Your task to perform on an android device: What's the weather going to be this weekend? Image 0: 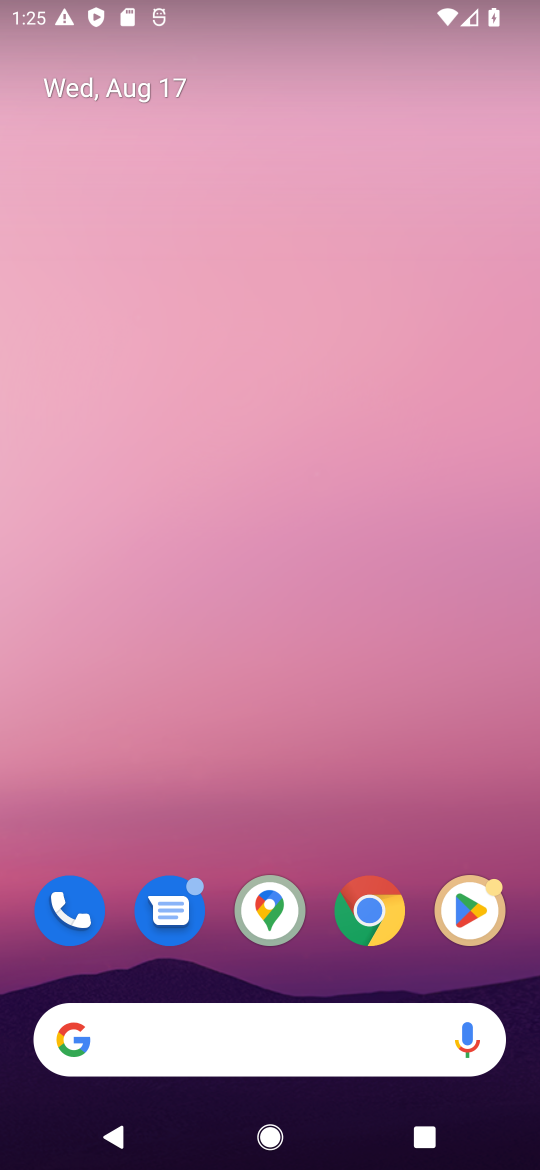
Step 0: click (313, 1043)
Your task to perform on an android device: What's the weather going to be this weekend? Image 1: 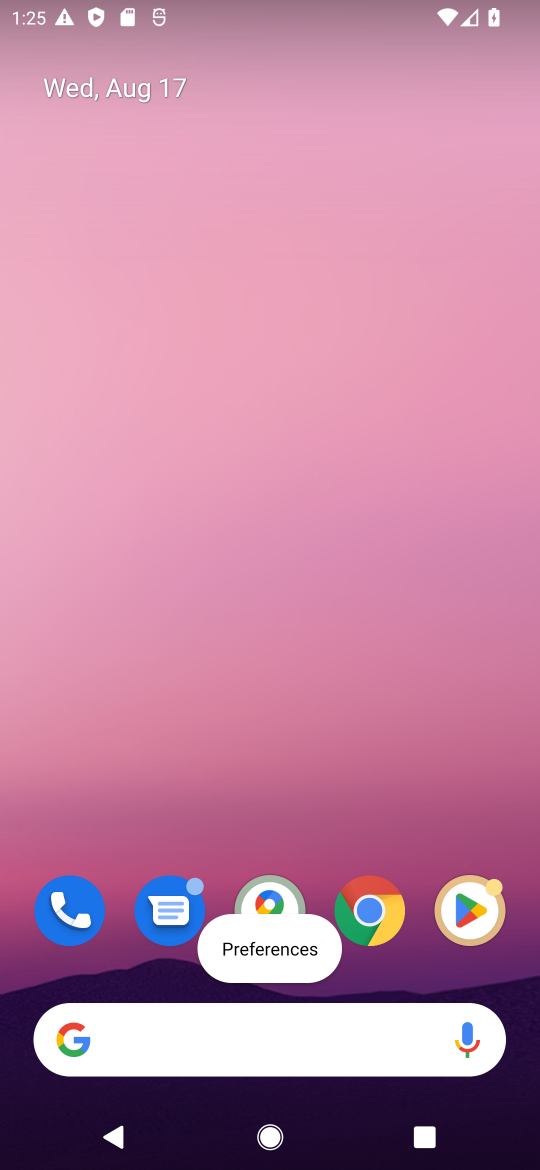
Step 1: click (247, 1057)
Your task to perform on an android device: What's the weather going to be this weekend? Image 2: 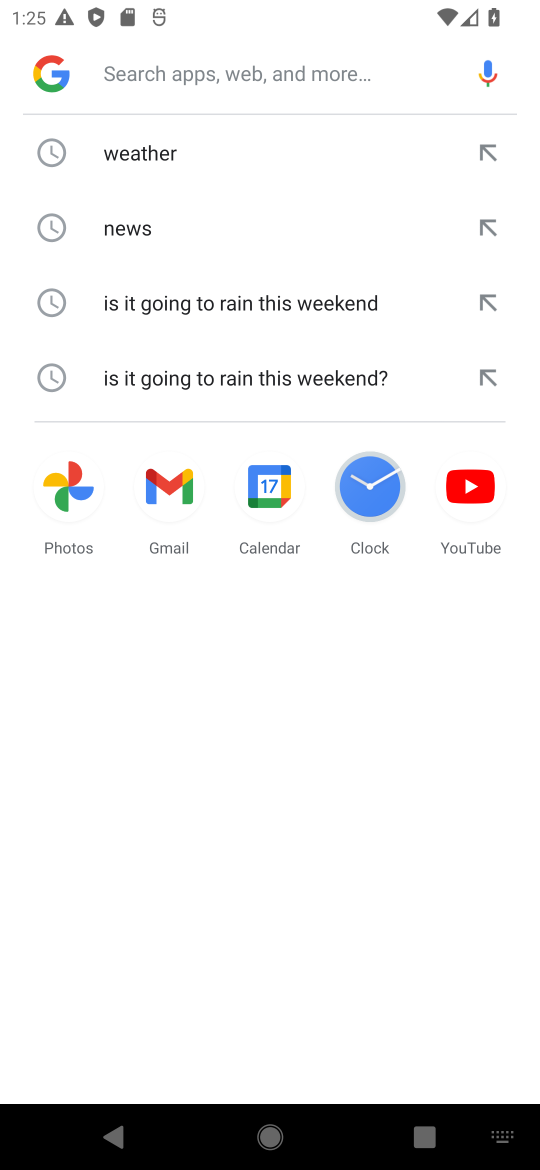
Step 2: click (150, 161)
Your task to perform on an android device: What's the weather going to be this weekend? Image 3: 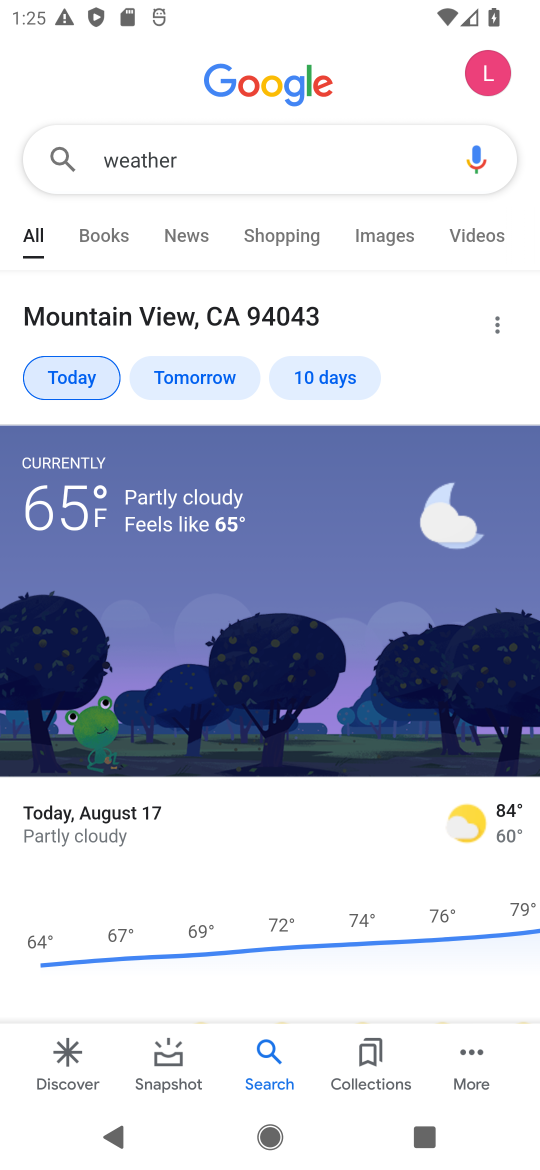
Step 3: click (328, 369)
Your task to perform on an android device: What's the weather going to be this weekend? Image 4: 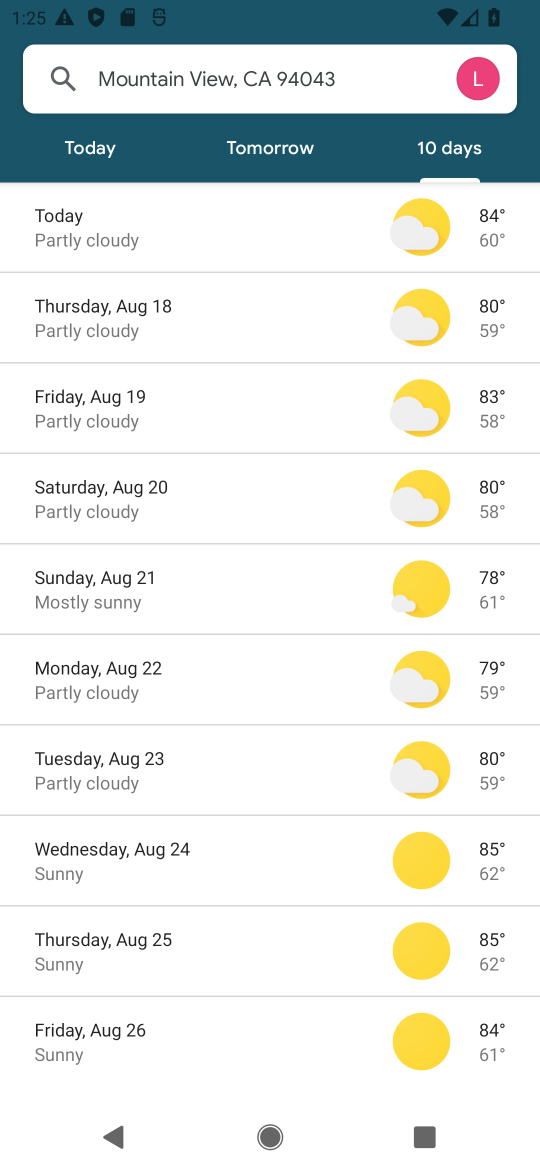
Step 4: task complete